Your task to perform on an android device: open device folders in google photos Image 0: 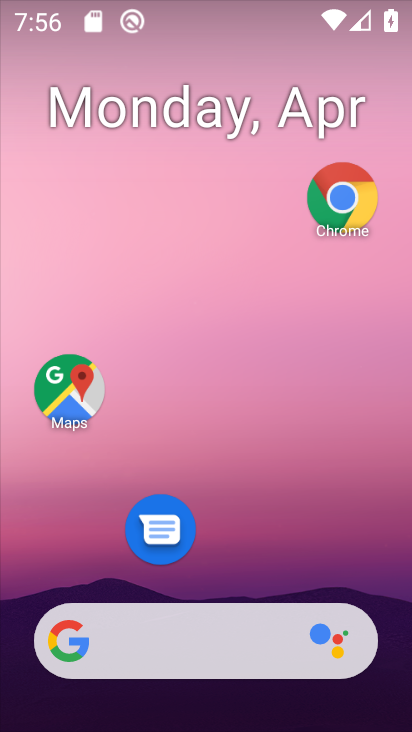
Step 0: drag from (232, 566) to (288, 21)
Your task to perform on an android device: open device folders in google photos Image 1: 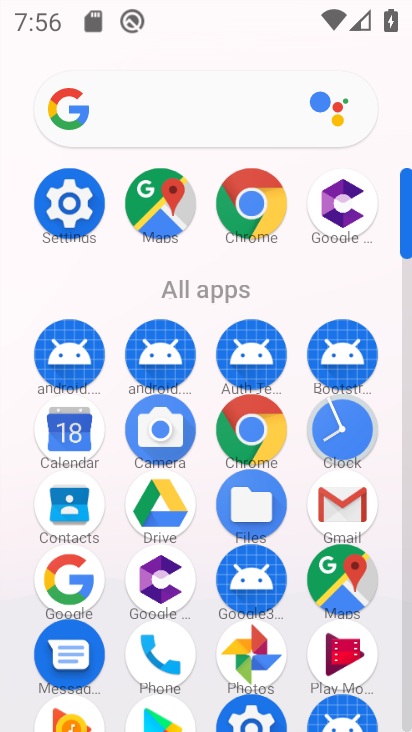
Step 1: click (253, 657)
Your task to perform on an android device: open device folders in google photos Image 2: 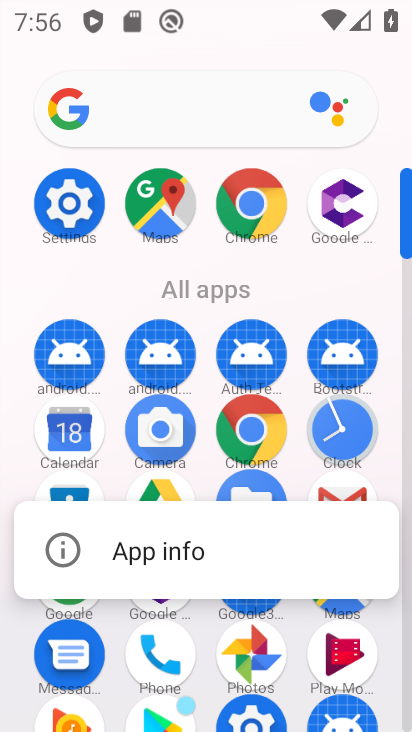
Step 2: click (255, 657)
Your task to perform on an android device: open device folders in google photos Image 3: 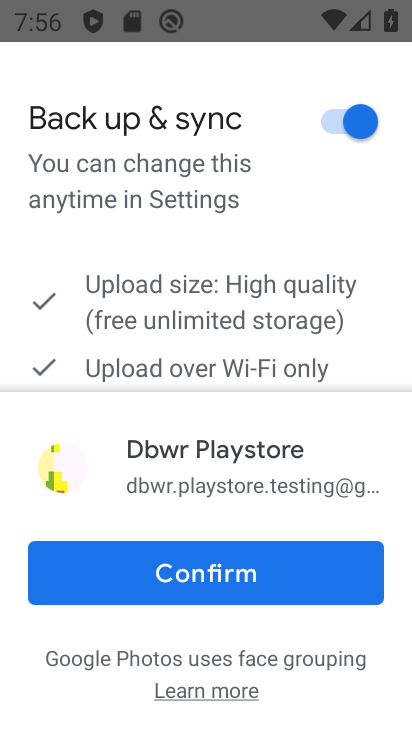
Step 3: click (223, 575)
Your task to perform on an android device: open device folders in google photos Image 4: 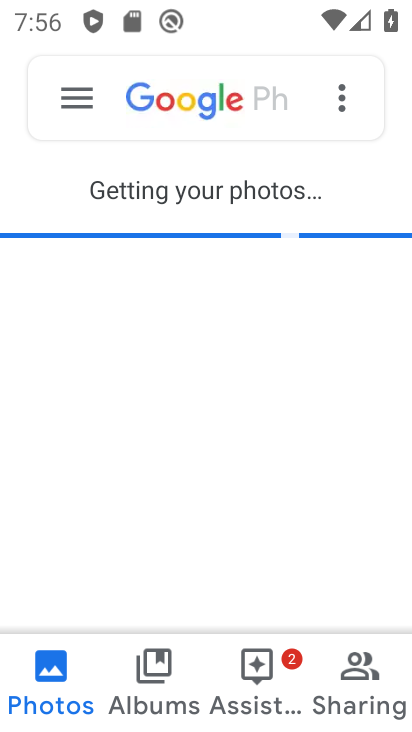
Step 4: click (66, 99)
Your task to perform on an android device: open device folders in google photos Image 5: 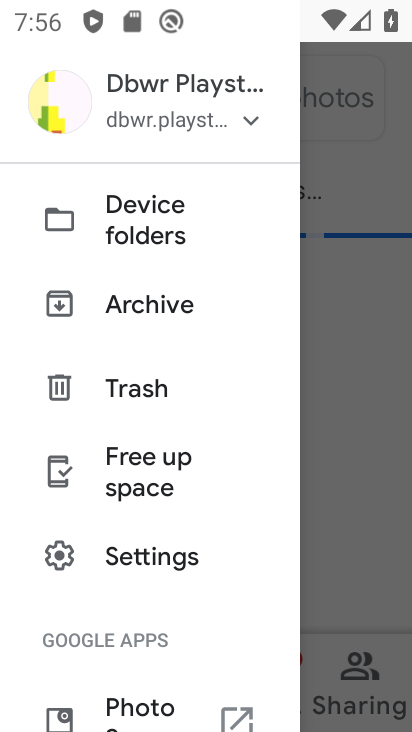
Step 5: click (130, 220)
Your task to perform on an android device: open device folders in google photos Image 6: 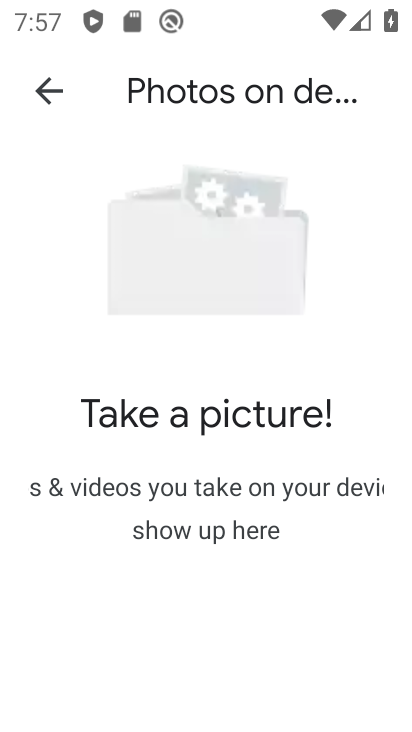
Step 6: task complete